Your task to perform on an android device: Open Youtube and go to "Your channel" Image 0: 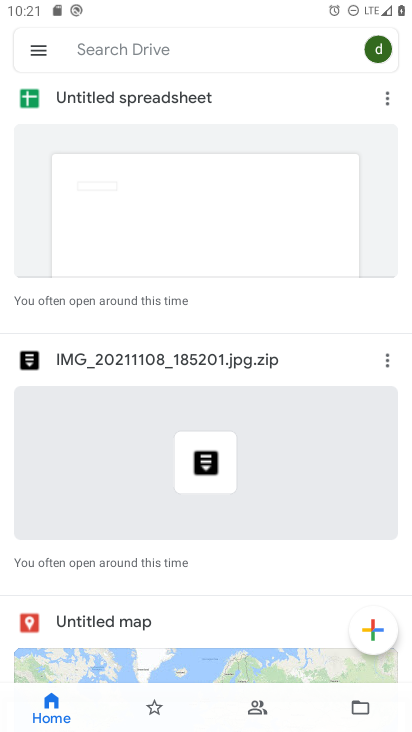
Step 0: press home button
Your task to perform on an android device: Open Youtube and go to "Your channel" Image 1: 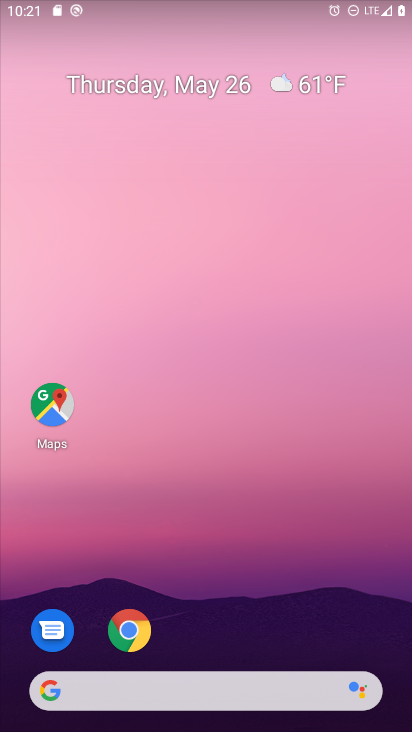
Step 1: drag from (226, 661) to (260, 178)
Your task to perform on an android device: Open Youtube and go to "Your channel" Image 2: 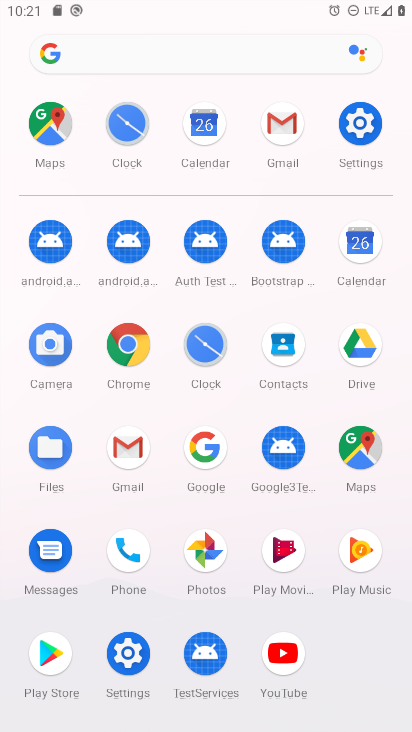
Step 2: click (279, 626)
Your task to perform on an android device: Open Youtube and go to "Your channel" Image 3: 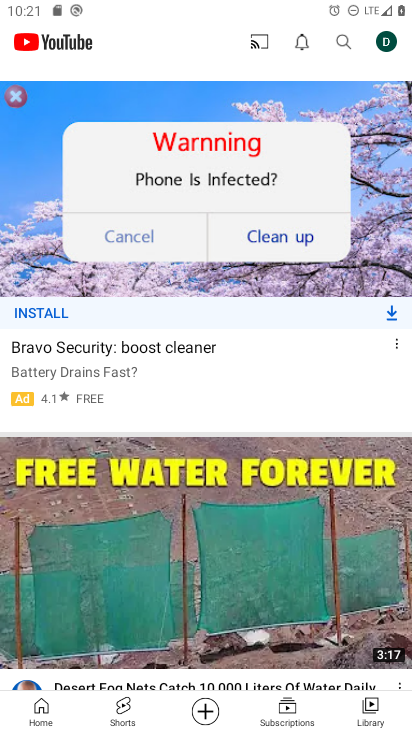
Step 3: click (361, 707)
Your task to perform on an android device: Open Youtube and go to "Your channel" Image 4: 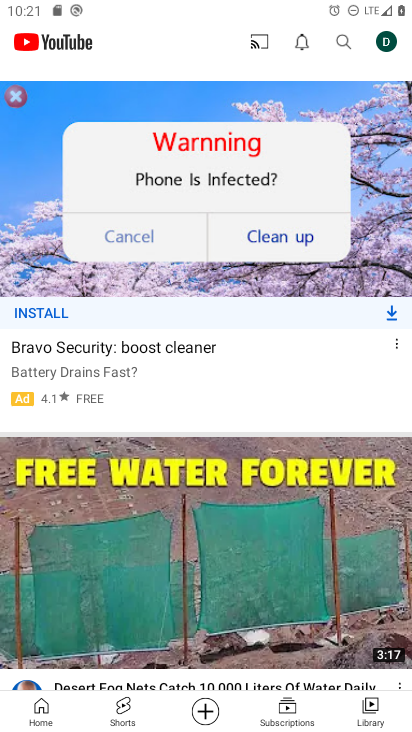
Step 4: click (361, 707)
Your task to perform on an android device: Open Youtube and go to "Your channel" Image 5: 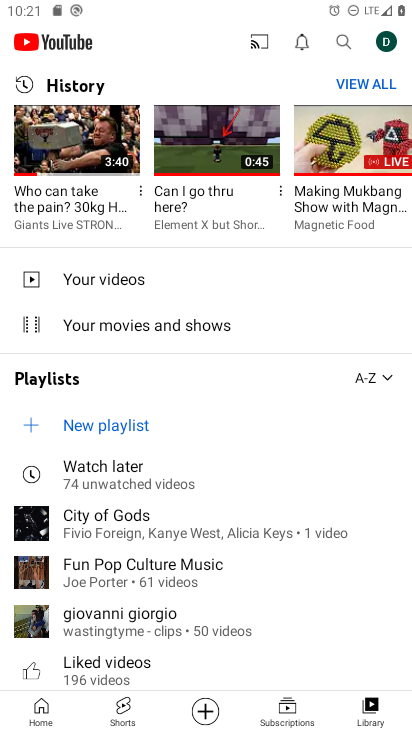
Step 5: click (377, 49)
Your task to perform on an android device: Open Youtube and go to "Your channel" Image 6: 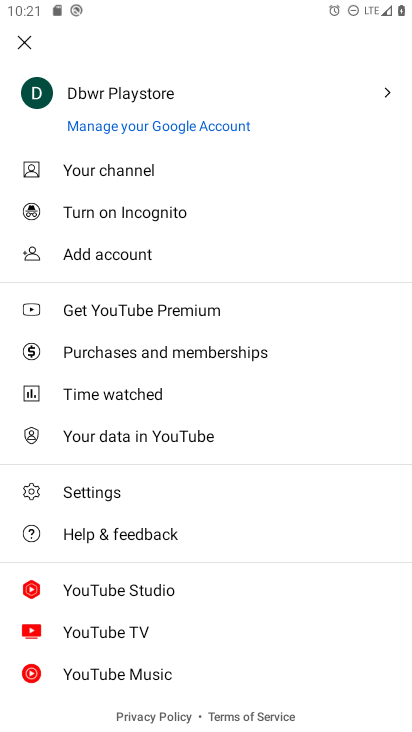
Step 6: click (102, 178)
Your task to perform on an android device: Open Youtube and go to "Your channel" Image 7: 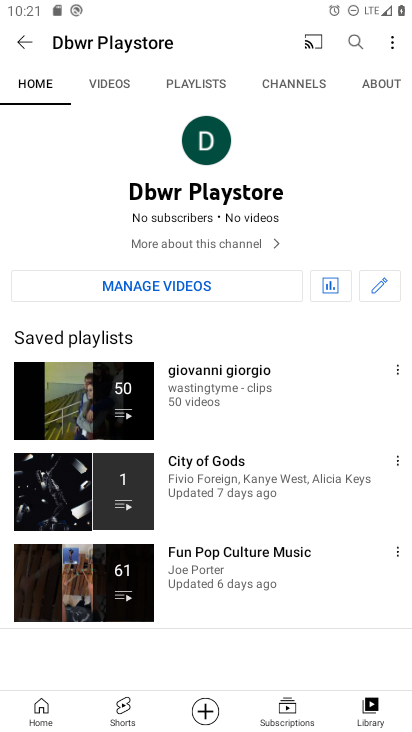
Step 7: task complete